Your task to perform on an android device: Go to Google Image 0: 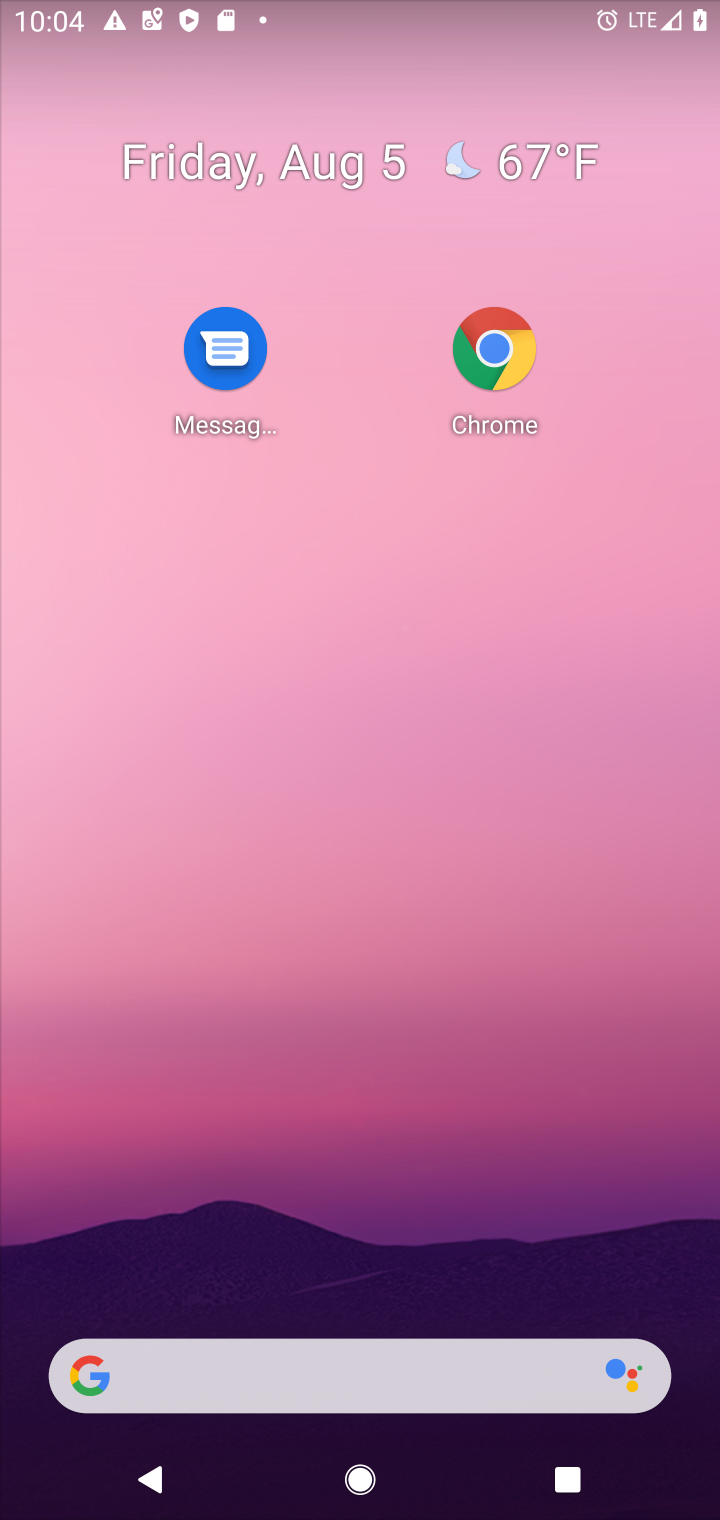
Step 0: press home button
Your task to perform on an android device: Go to Google Image 1: 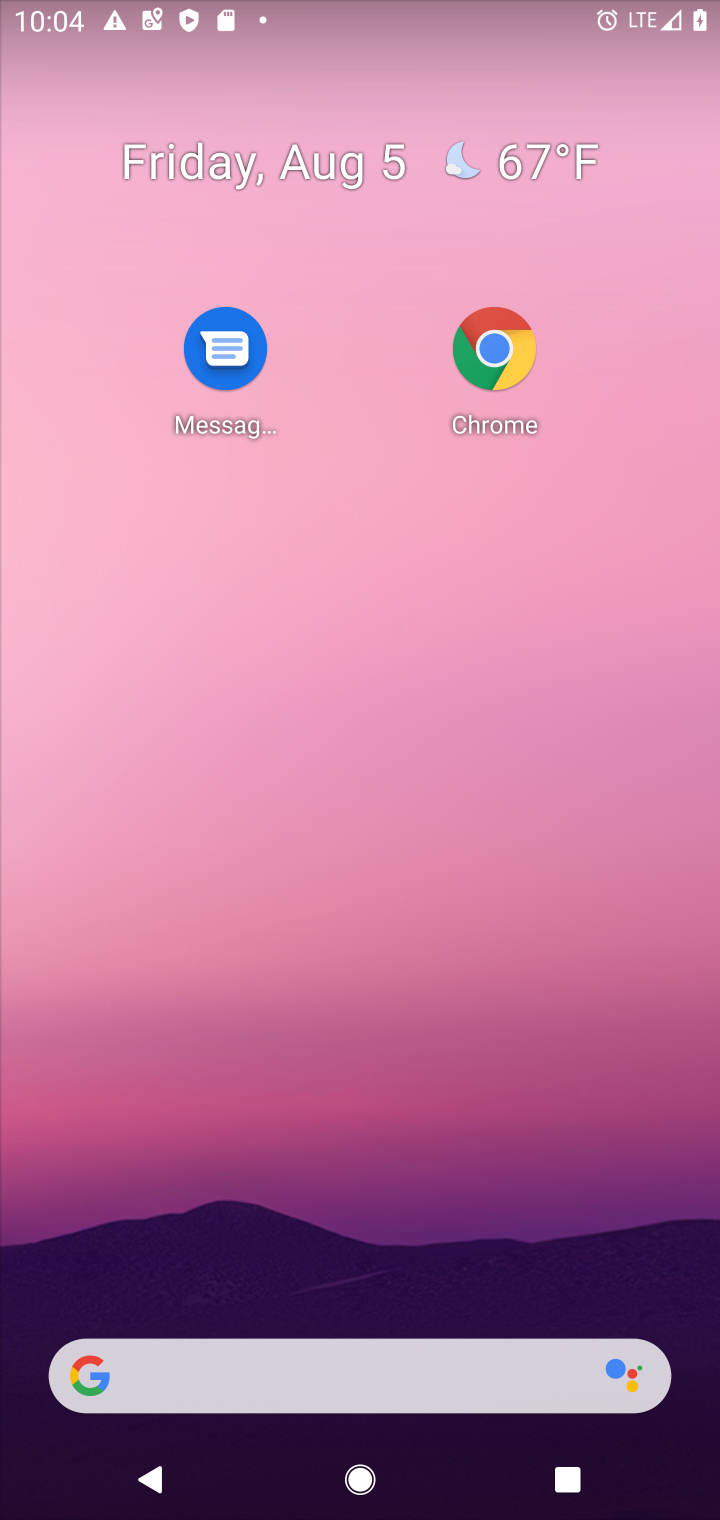
Step 1: drag from (482, 1409) to (350, 307)
Your task to perform on an android device: Go to Google Image 2: 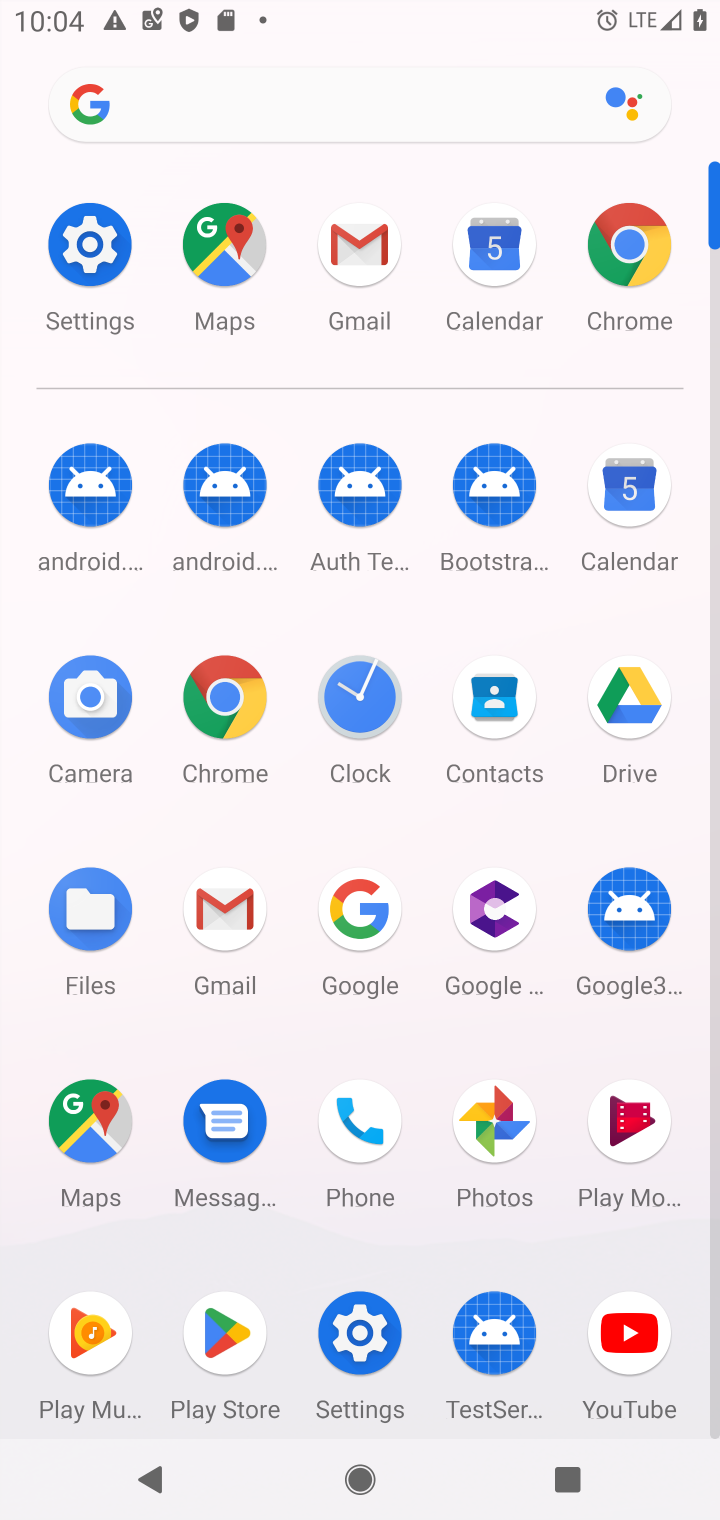
Step 2: click (91, 93)
Your task to perform on an android device: Go to Google Image 3: 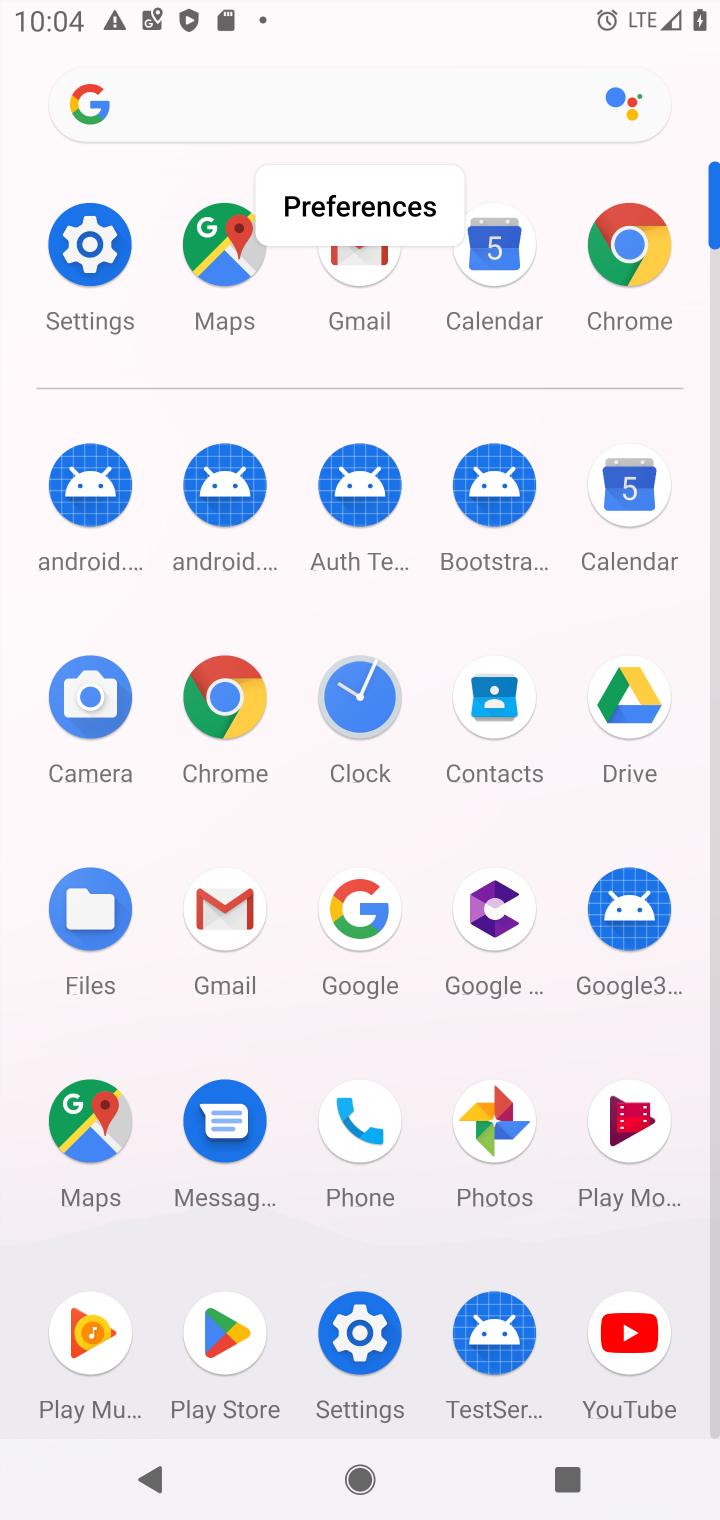
Step 3: click (67, 122)
Your task to perform on an android device: Go to Google Image 4: 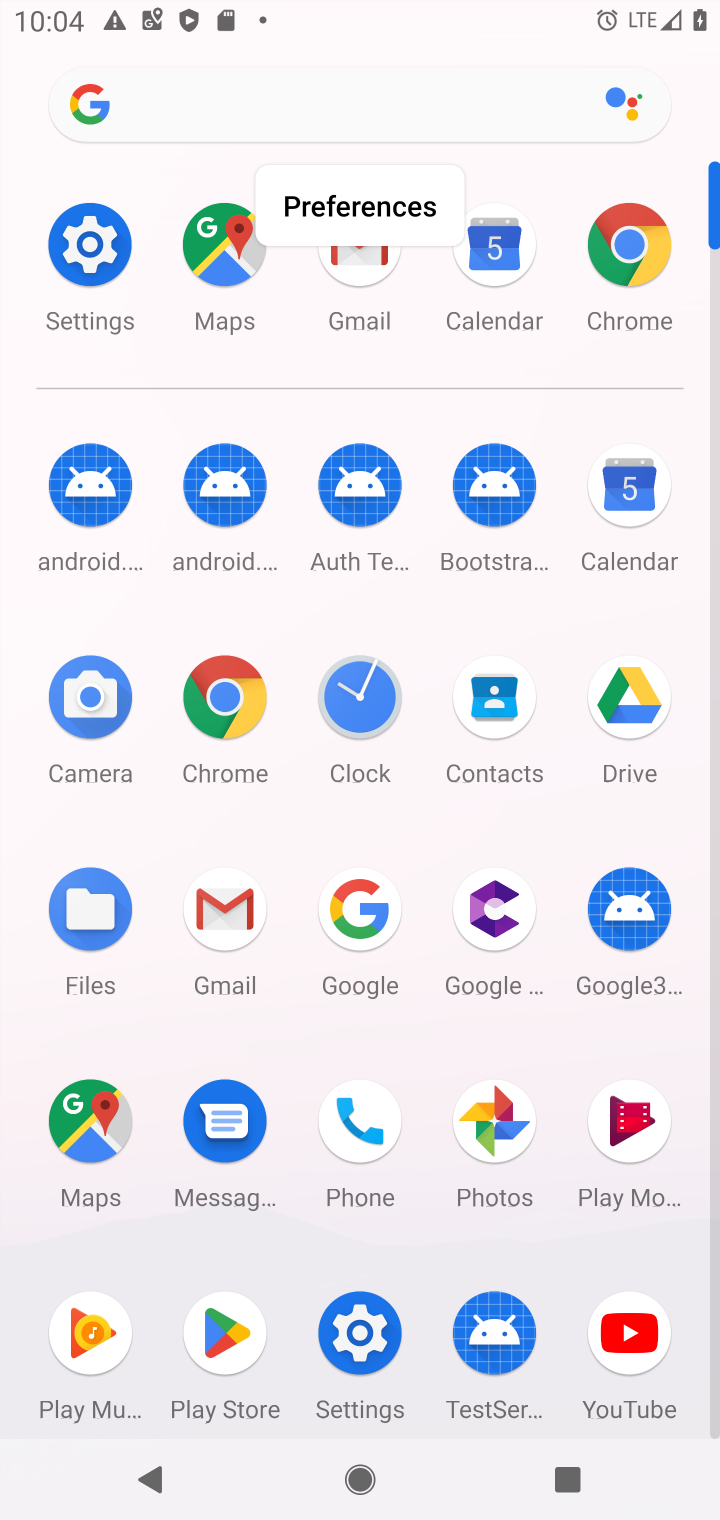
Step 4: click (94, 94)
Your task to perform on an android device: Go to Google Image 5: 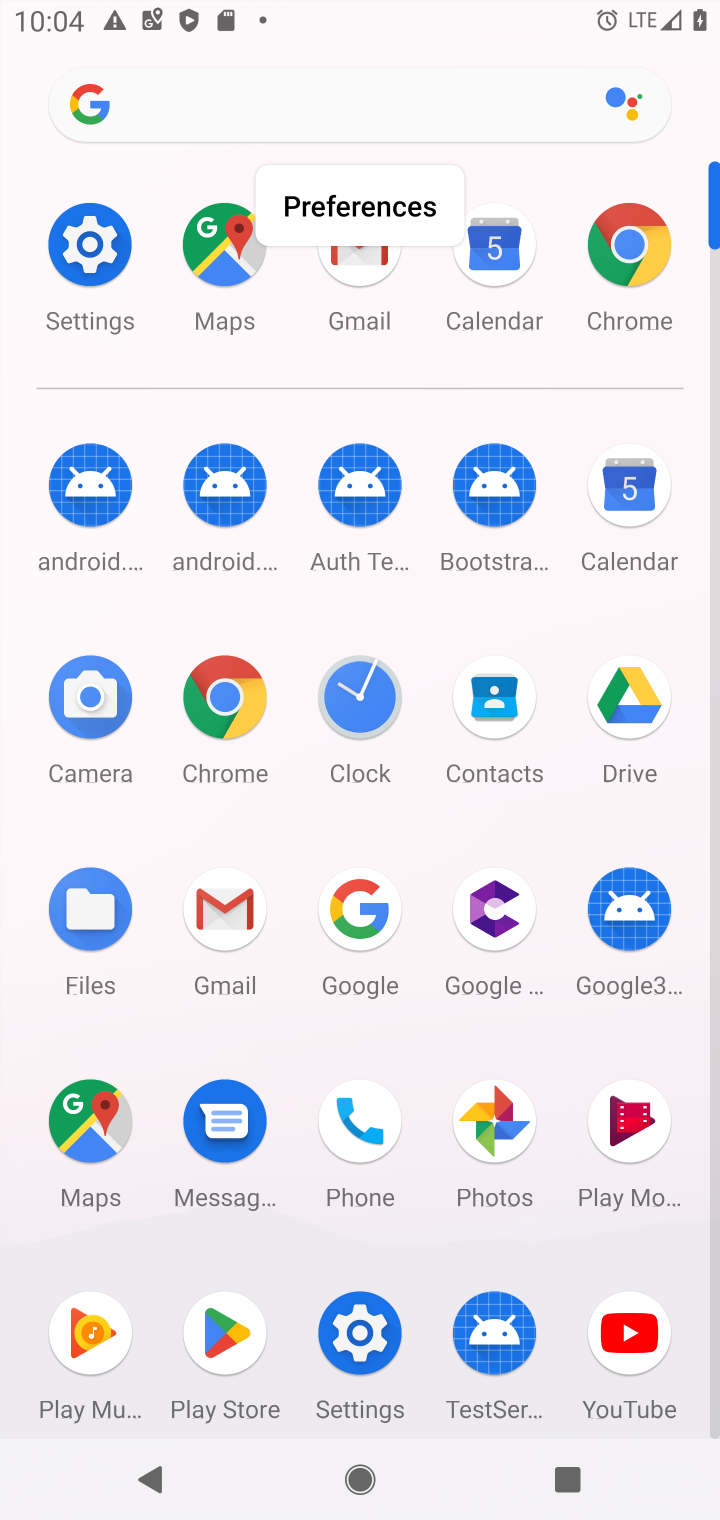
Step 5: click (94, 94)
Your task to perform on an android device: Go to Google Image 6: 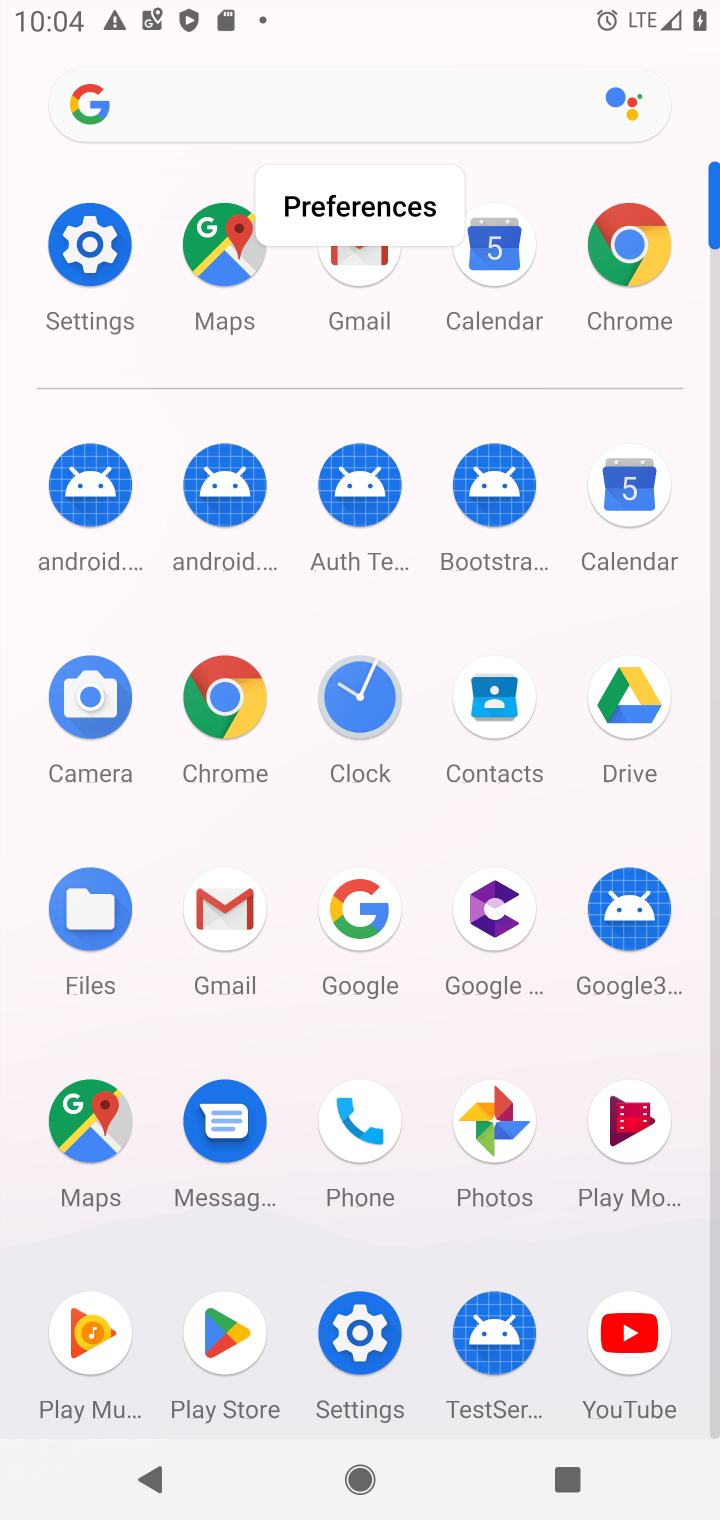
Step 6: click (91, 101)
Your task to perform on an android device: Go to Google Image 7: 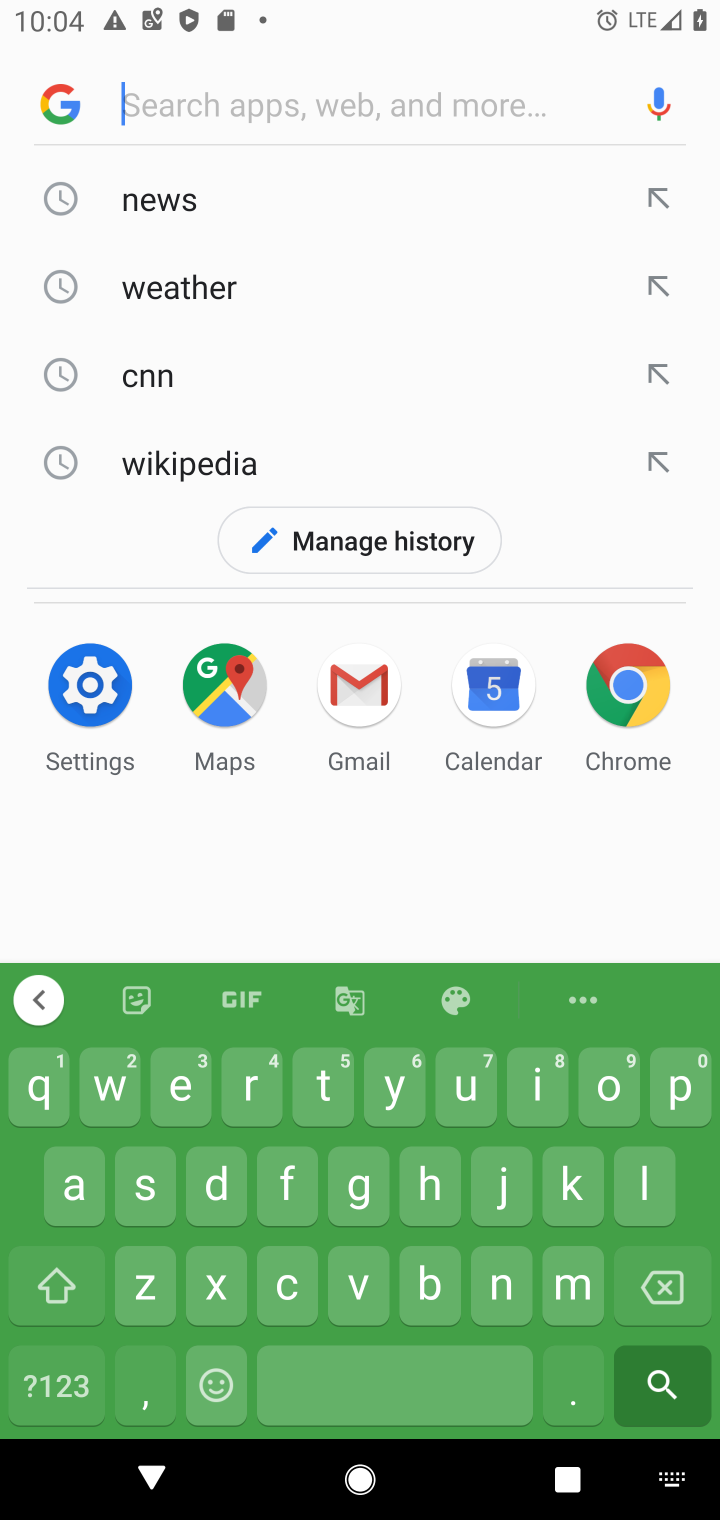
Step 7: click (62, 106)
Your task to perform on an android device: Go to Google Image 8: 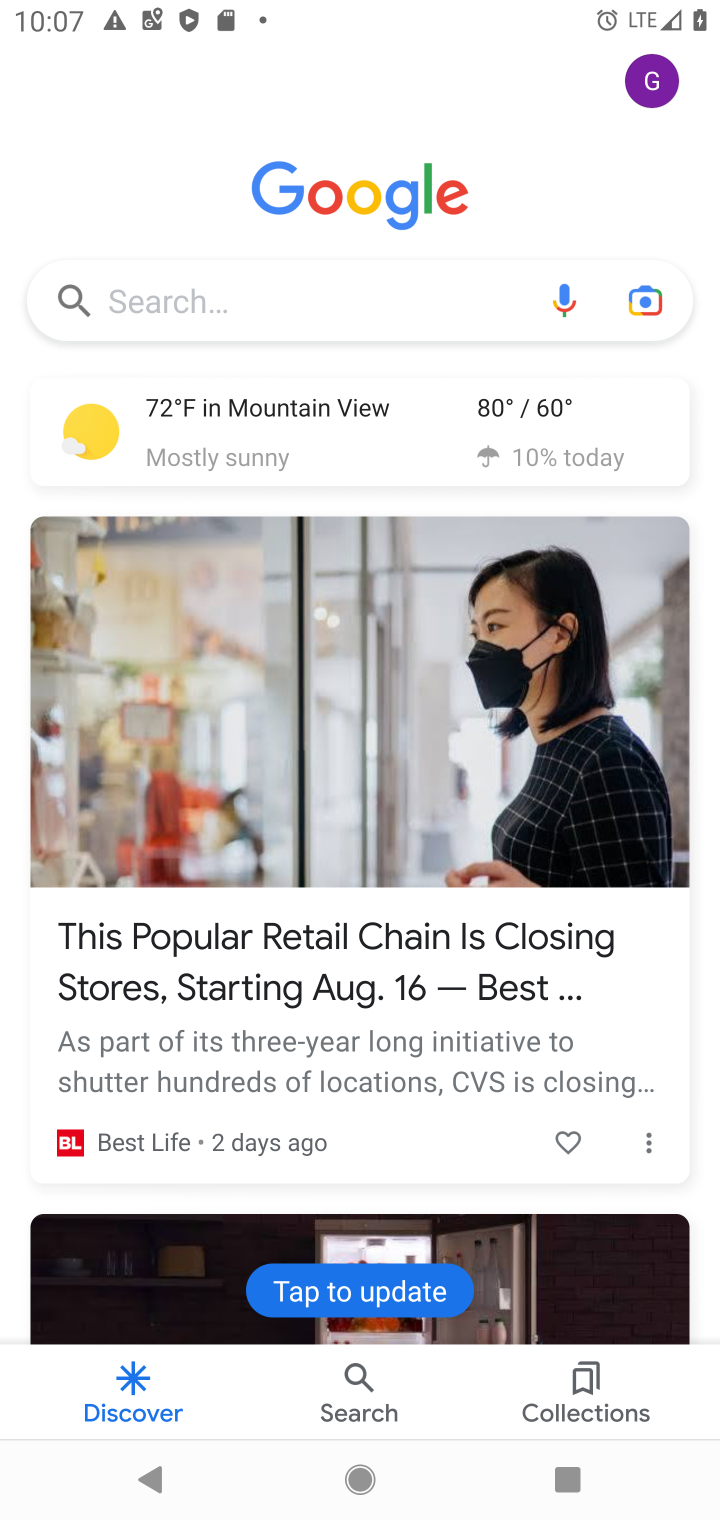
Step 8: task complete